Your task to perform on an android device: Search for "usb-c" on bestbuy.com, select the first entry, and add it to the cart. Image 0: 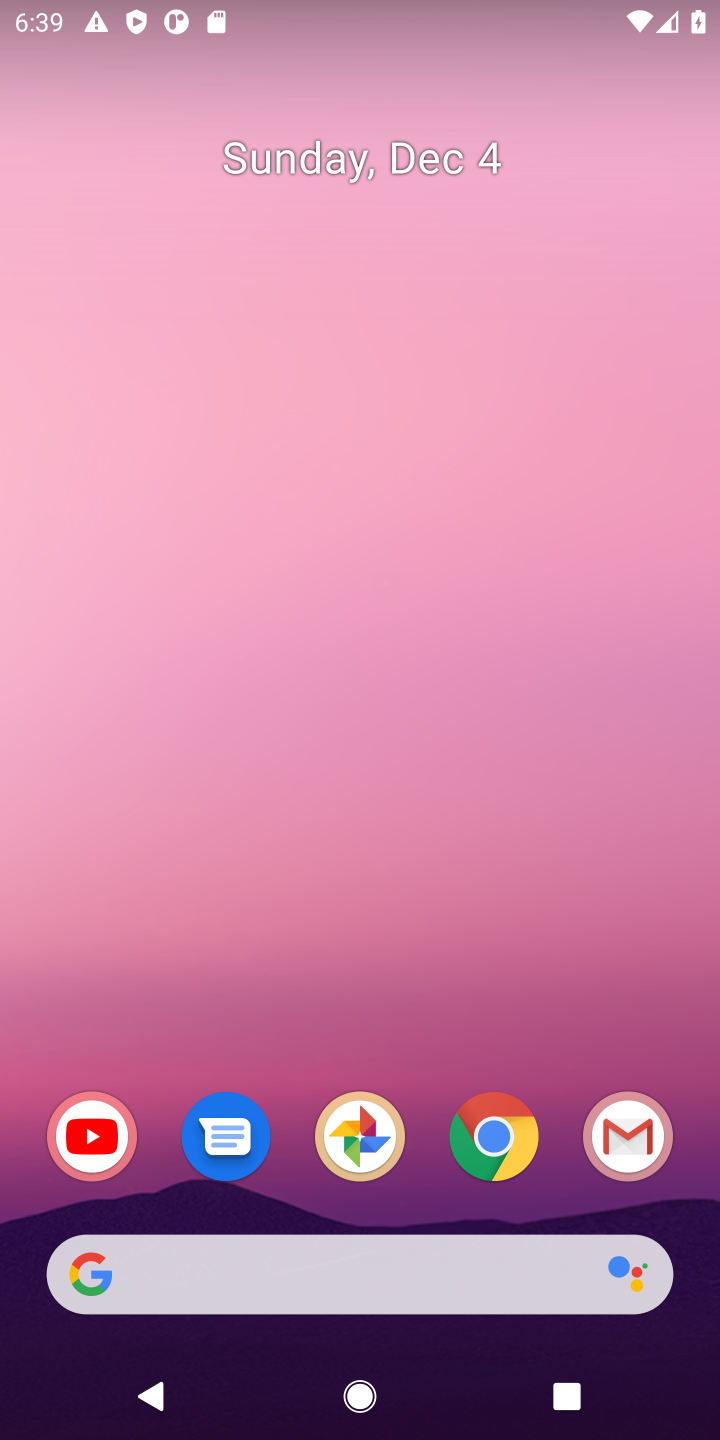
Step 0: click (493, 1139)
Your task to perform on an android device: Search for "usb-c" on bestbuy.com, select the first entry, and add it to the cart. Image 1: 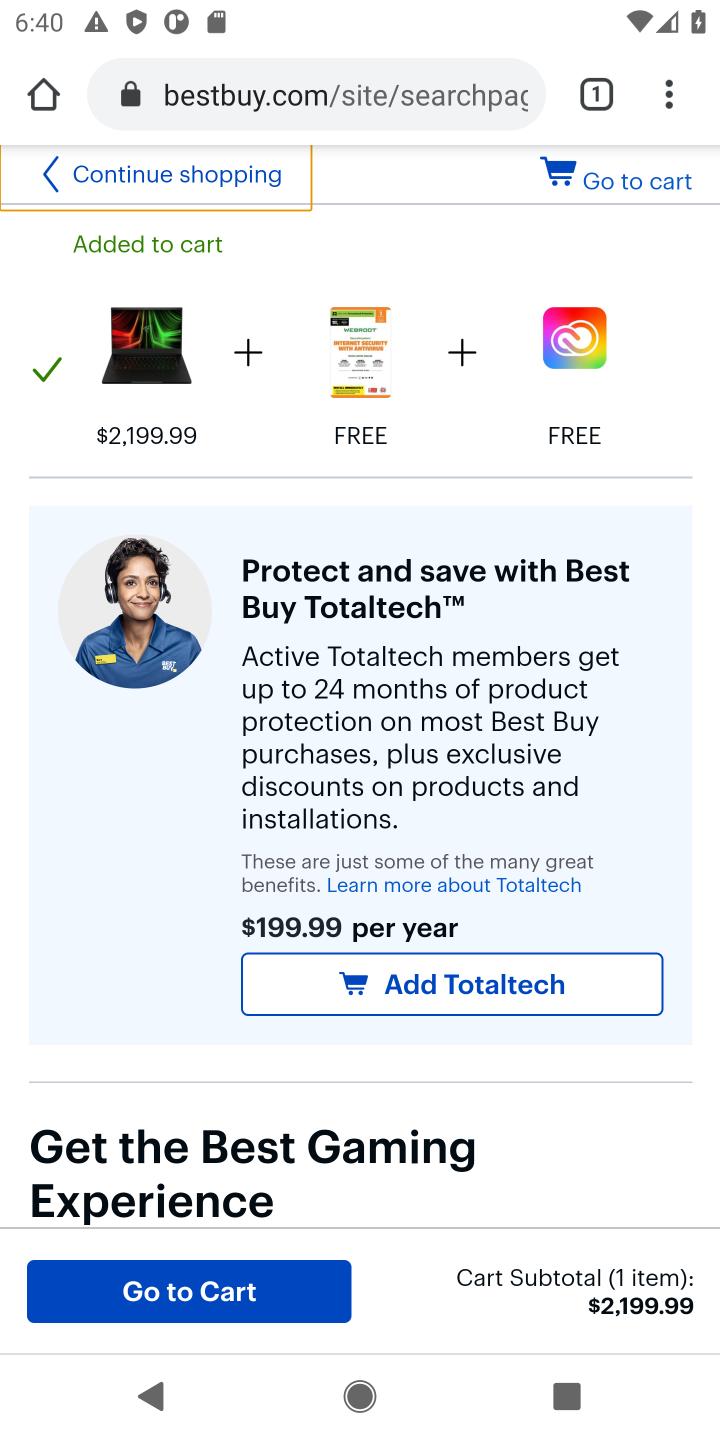
Step 1: press back button
Your task to perform on an android device: Search for "usb-c" on bestbuy.com, select the first entry, and add it to the cart. Image 2: 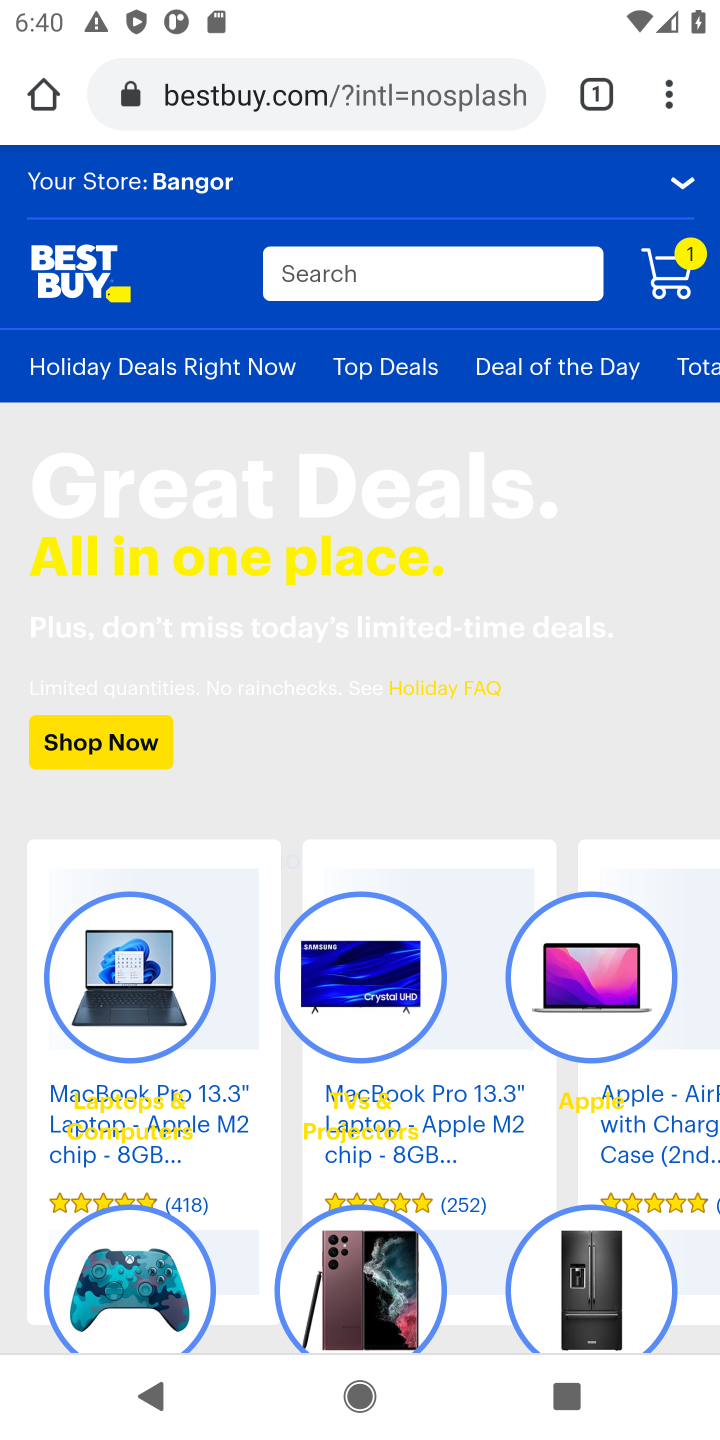
Step 2: click (403, 275)
Your task to perform on an android device: Search for "usb-c" on bestbuy.com, select the first entry, and add it to the cart. Image 3: 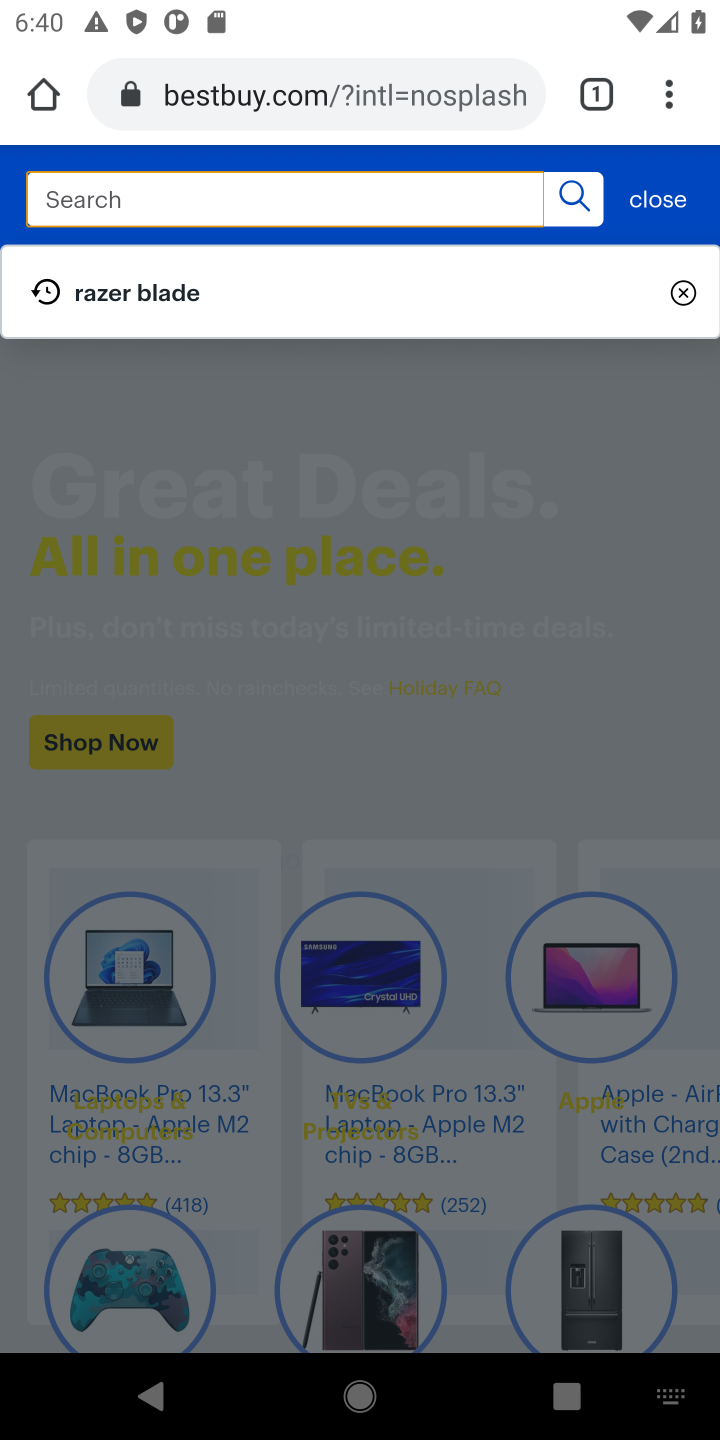
Step 3: type "usb-c"
Your task to perform on an android device: Search for "usb-c" on bestbuy.com, select the first entry, and add it to the cart. Image 4: 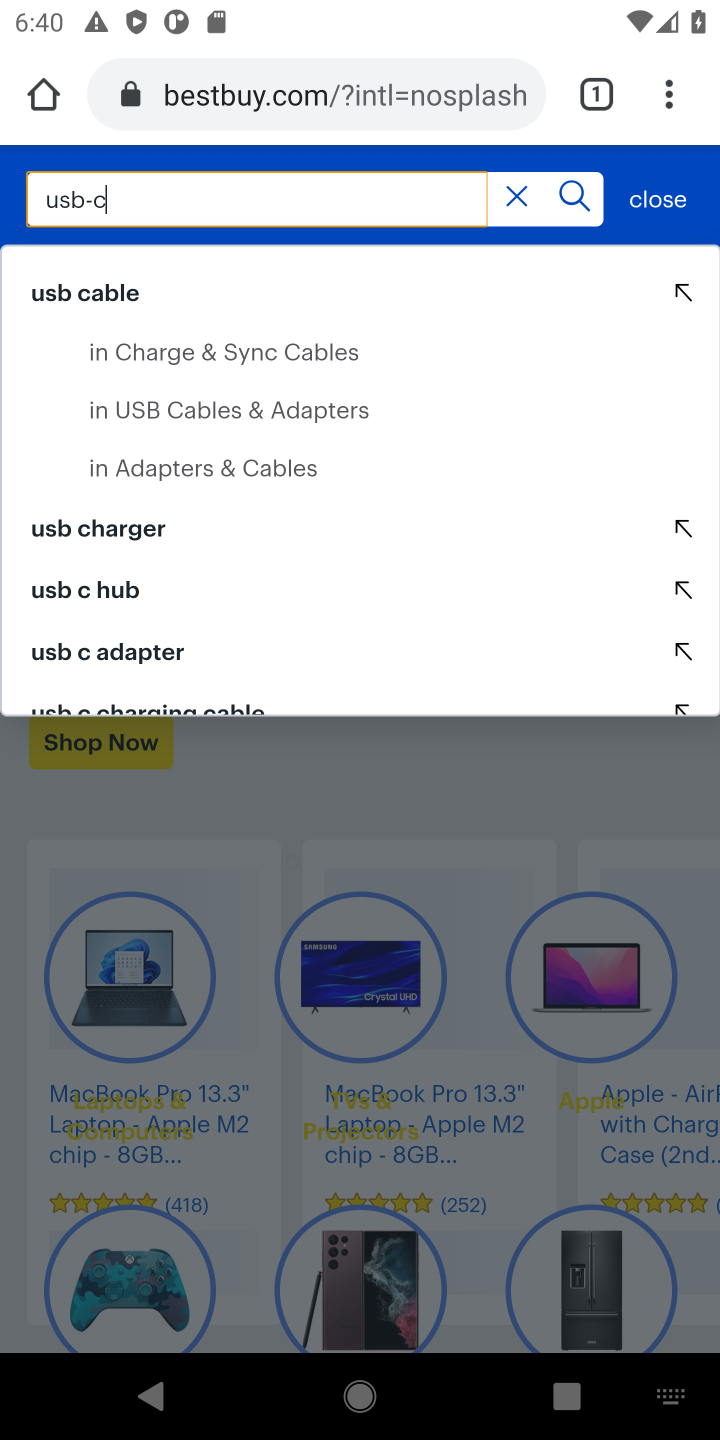
Step 4: click (552, 201)
Your task to perform on an android device: Search for "usb-c" on bestbuy.com, select the first entry, and add it to the cart. Image 5: 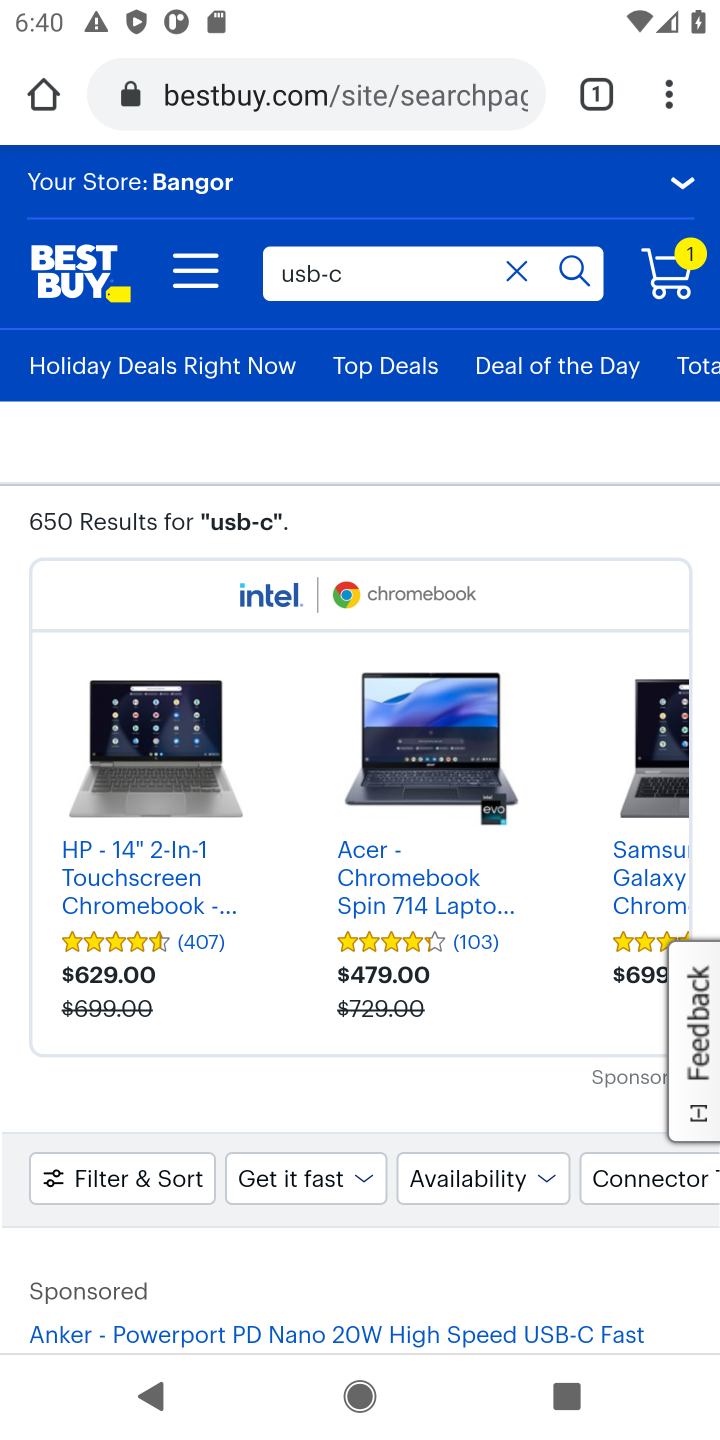
Step 5: drag from (293, 961) to (334, 530)
Your task to perform on an android device: Search for "usb-c" on bestbuy.com, select the first entry, and add it to the cart. Image 6: 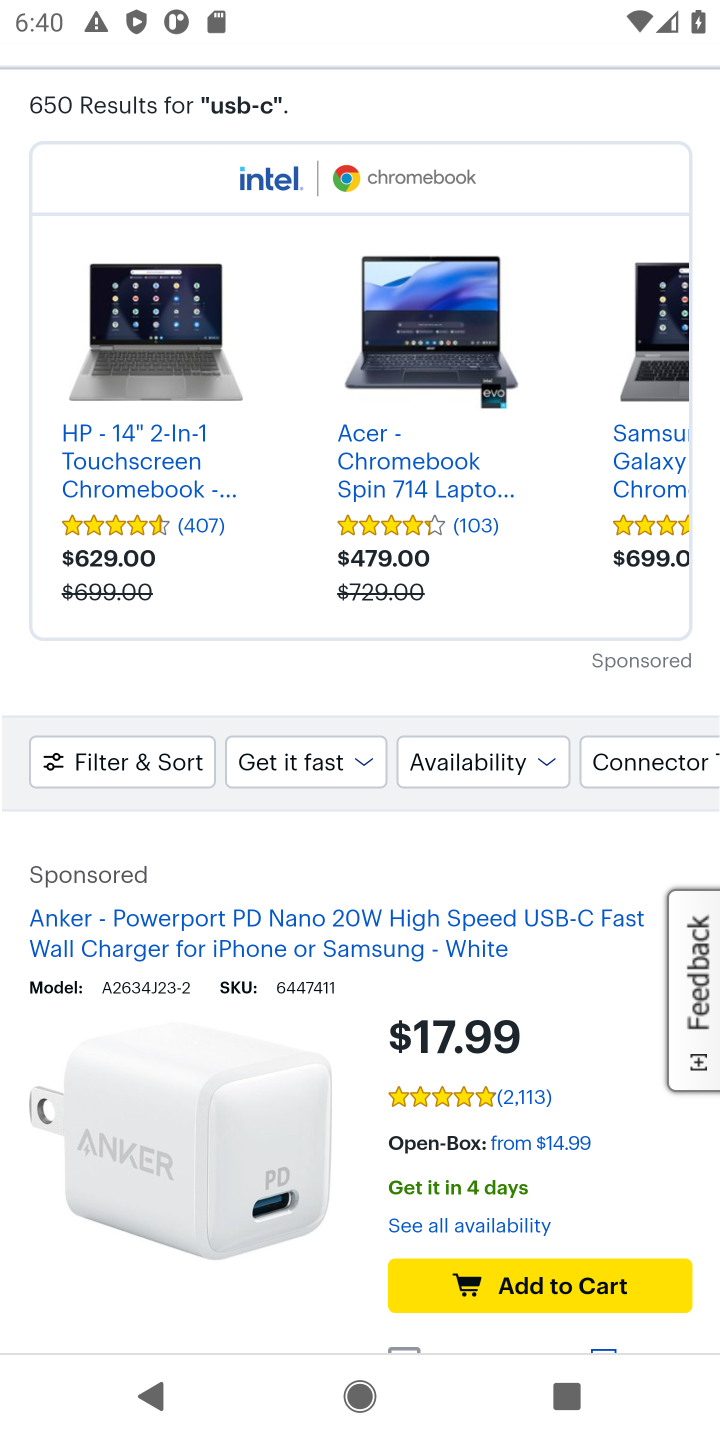
Step 6: drag from (294, 819) to (315, 606)
Your task to perform on an android device: Search for "usb-c" on bestbuy.com, select the first entry, and add it to the cart. Image 7: 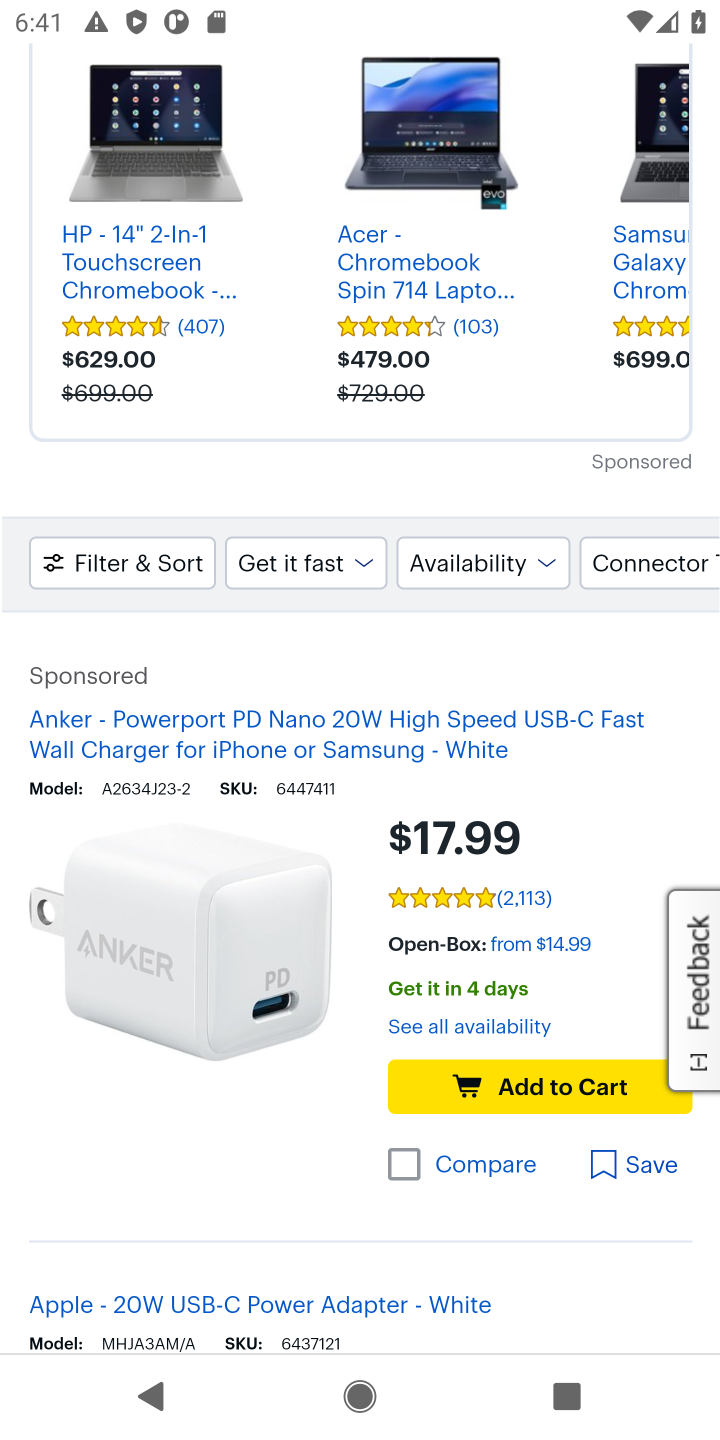
Step 7: click (521, 1093)
Your task to perform on an android device: Search for "usb-c" on bestbuy.com, select the first entry, and add it to the cart. Image 8: 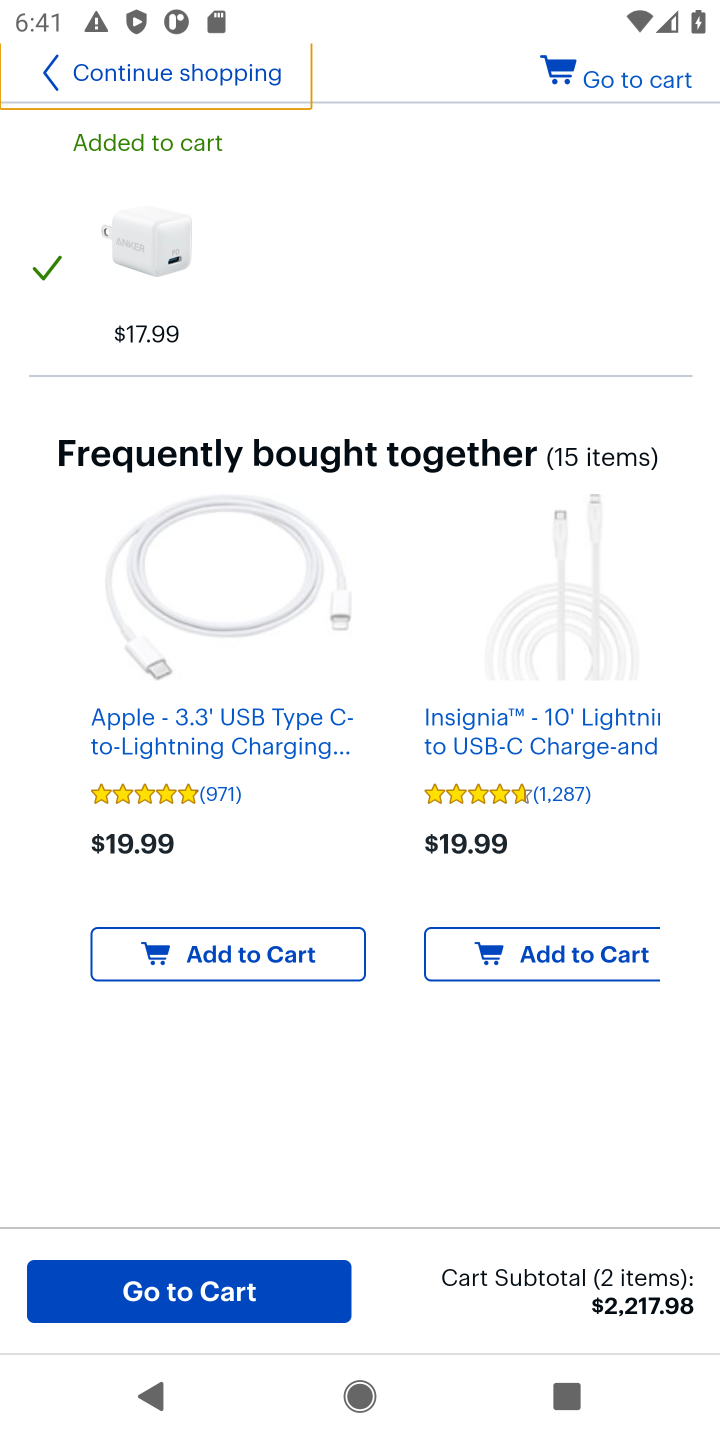
Step 8: task complete